Your task to perform on an android device: turn smart compose on in the gmail app Image 0: 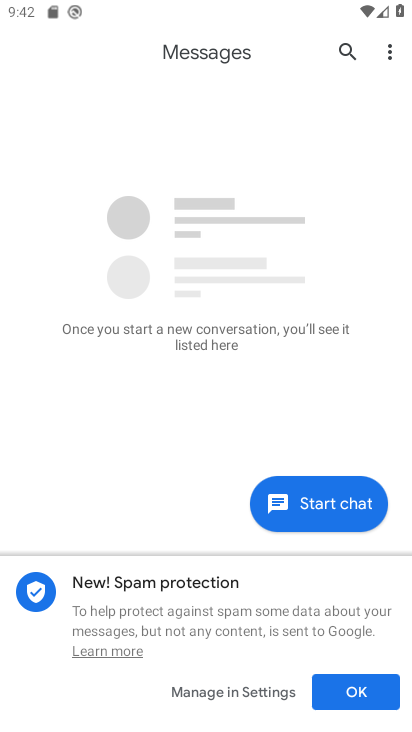
Step 0: press back button
Your task to perform on an android device: turn smart compose on in the gmail app Image 1: 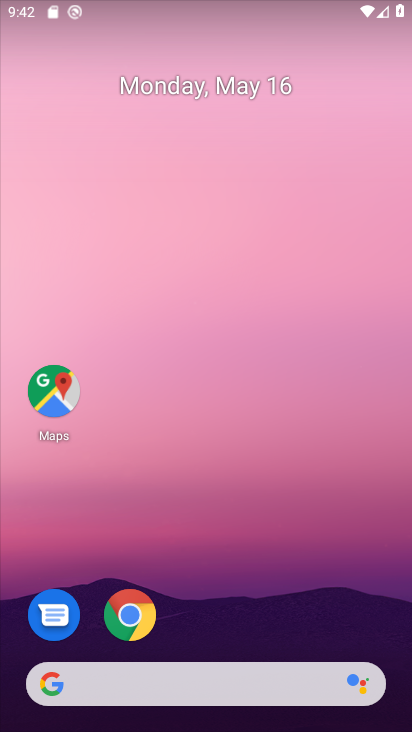
Step 1: drag from (212, 377) to (172, 14)
Your task to perform on an android device: turn smart compose on in the gmail app Image 2: 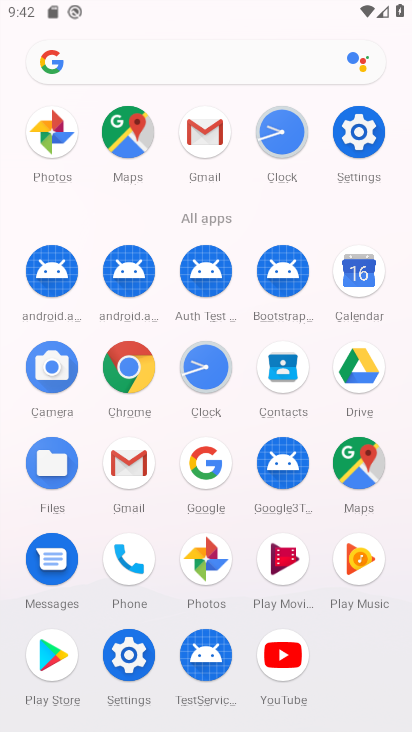
Step 2: drag from (17, 490) to (21, 187)
Your task to perform on an android device: turn smart compose on in the gmail app Image 3: 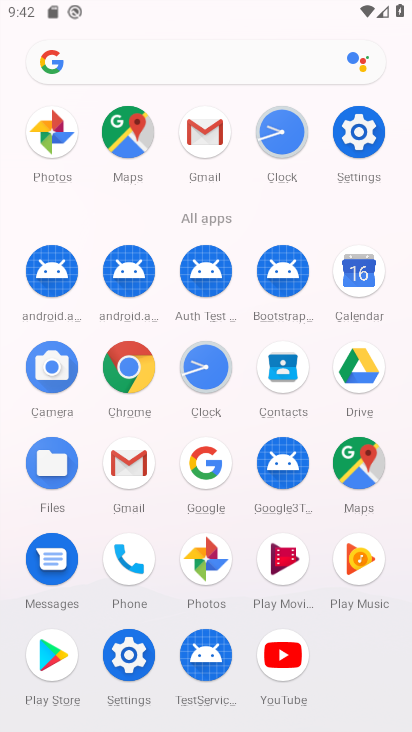
Step 3: click (128, 461)
Your task to perform on an android device: turn smart compose on in the gmail app Image 4: 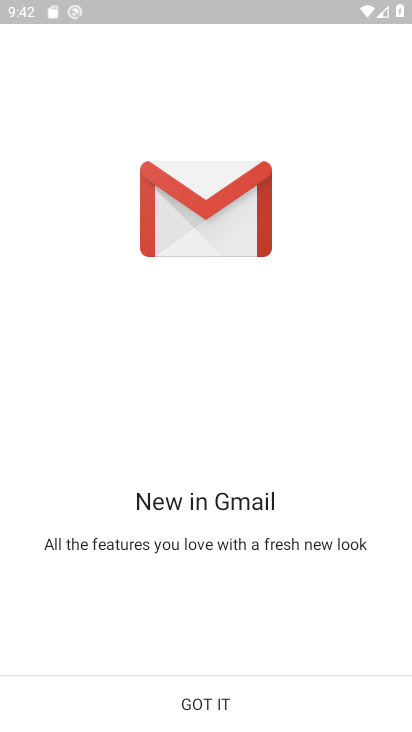
Step 4: click (218, 694)
Your task to perform on an android device: turn smart compose on in the gmail app Image 5: 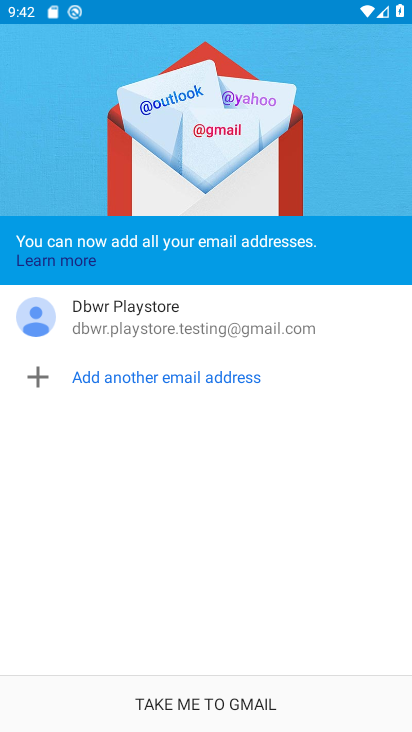
Step 5: click (202, 709)
Your task to perform on an android device: turn smart compose on in the gmail app Image 6: 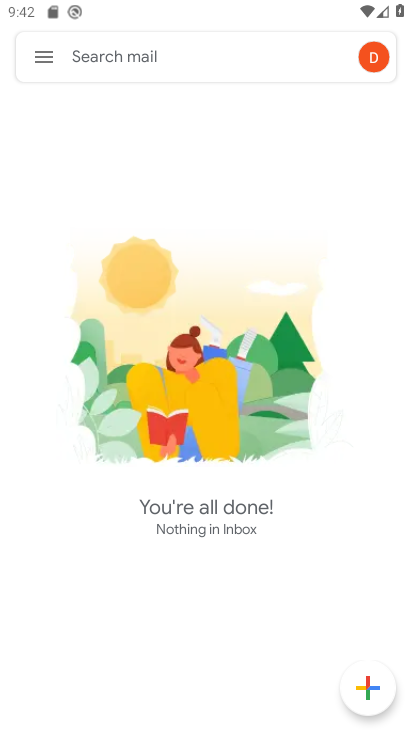
Step 6: click (42, 51)
Your task to perform on an android device: turn smart compose on in the gmail app Image 7: 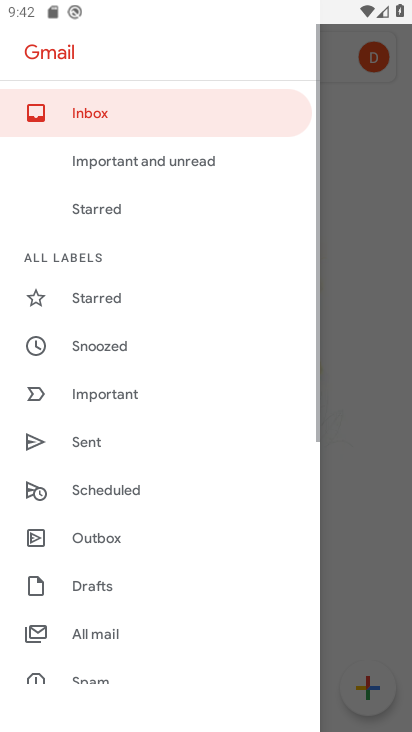
Step 7: drag from (229, 645) to (213, 110)
Your task to perform on an android device: turn smart compose on in the gmail app Image 8: 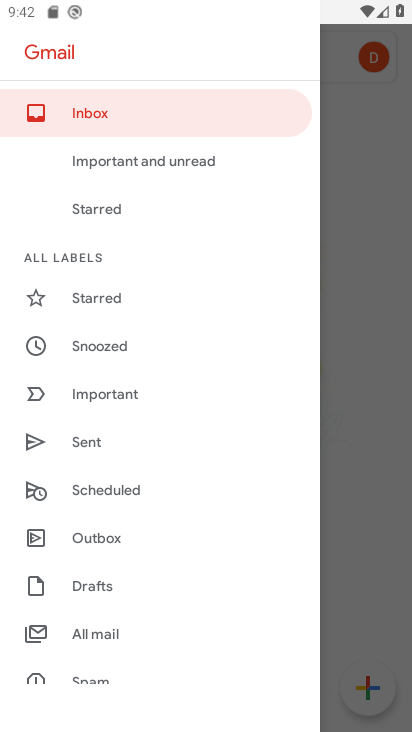
Step 8: drag from (181, 486) to (194, 191)
Your task to perform on an android device: turn smart compose on in the gmail app Image 9: 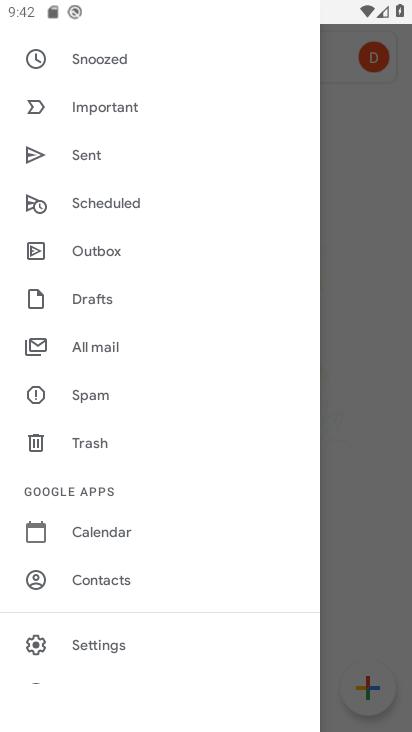
Step 9: drag from (170, 601) to (173, 253)
Your task to perform on an android device: turn smart compose on in the gmail app Image 10: 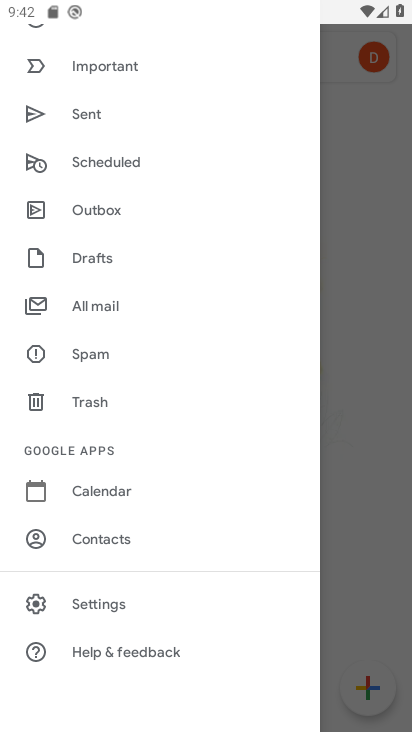
Step 10: click (122, 603)
Your task to perform on an android device: turn smart compose on in the gmail app Image 11: 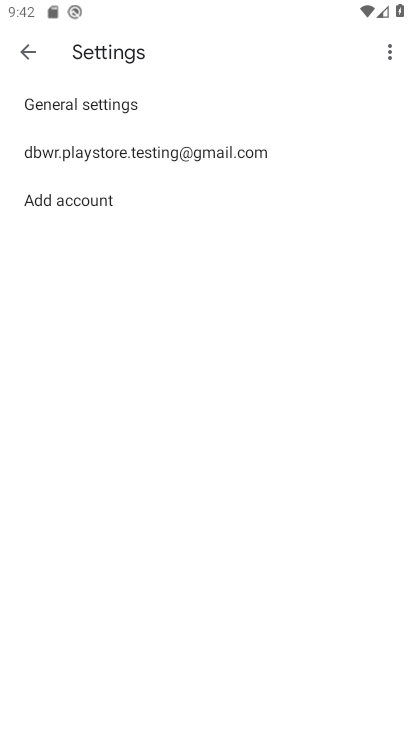
Step 11: click (93, 149)
Your task to perform on an android device: turn smart compose on in the gmail app Image 12: 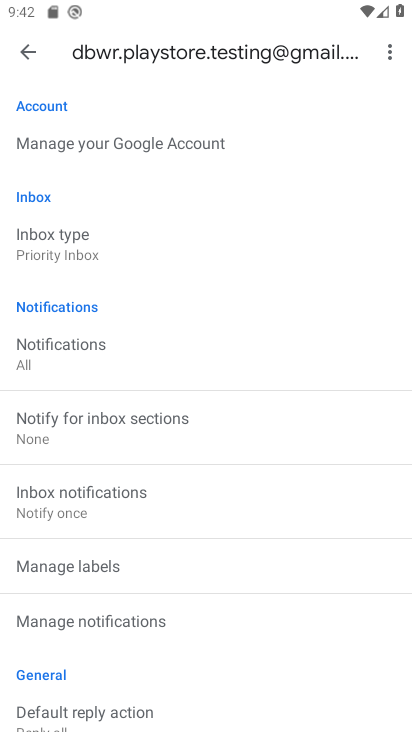
Step 12: task complete